Your task to perform on an android device: Open wifi settings Image 0: 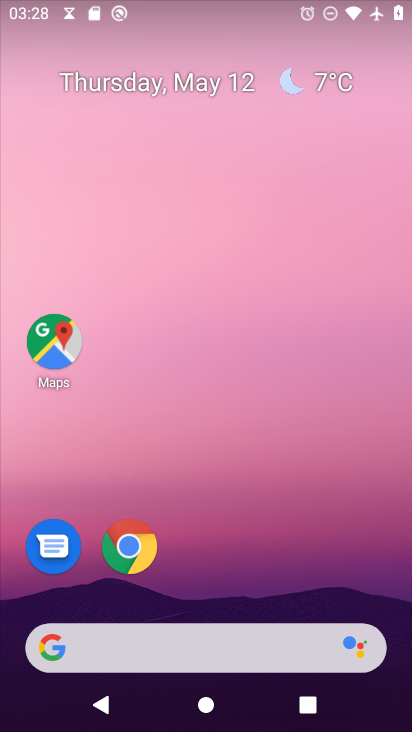
Step 0: drag from (197, 649) to (328, 111)
Your task to perform on an android device: Open wifi settings Image 1: 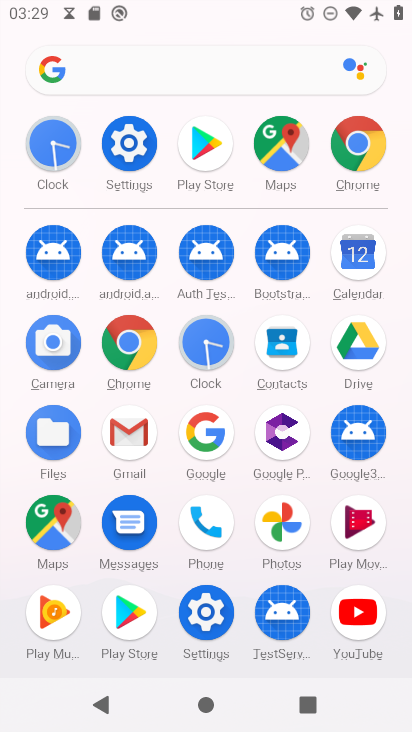
Step 1: click (140, 159)
Your task to perform on an android device: Open wifi settings Image 2: 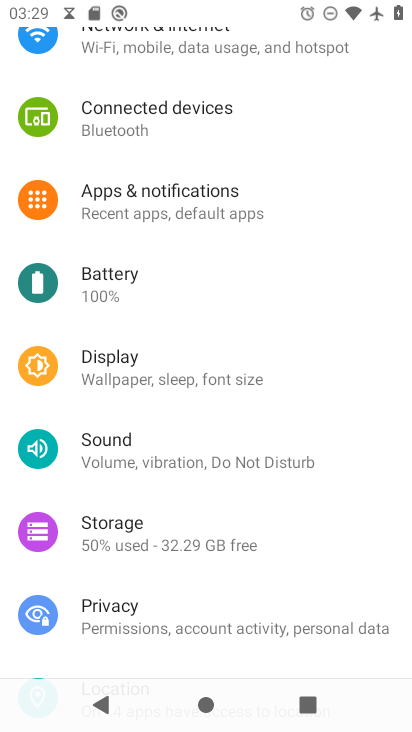
Step 2: drag from (261, 110) to (182, 529)
Your task to perform on an android device: Open wifi settings Image 3: 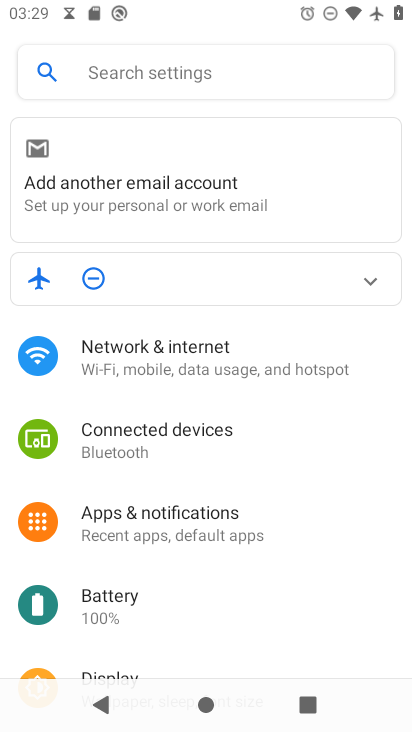
Step 3: click (173, 357)
Your task to perform on an android device: Open wifi settings Image 4: 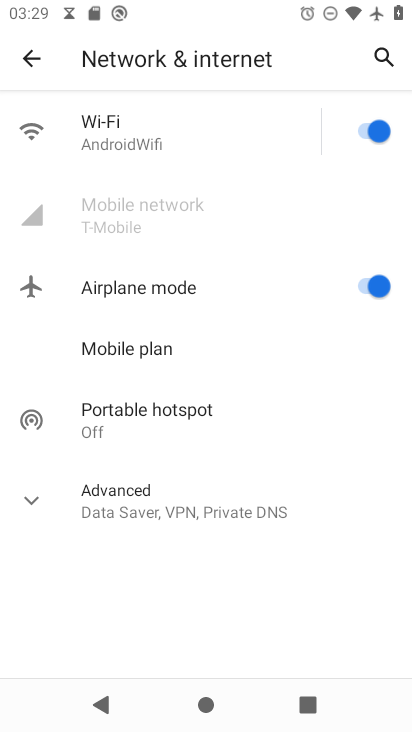
Step 4: click (115, 141)
Your task to perform on an android device: Open wifi settings Image 5: 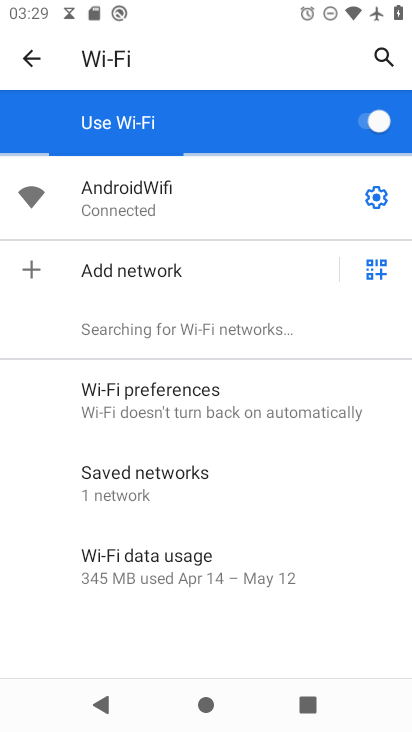
Step 5: task complete